Your task to perform on an android device: turn off smart reply in the gmail app Image 0: 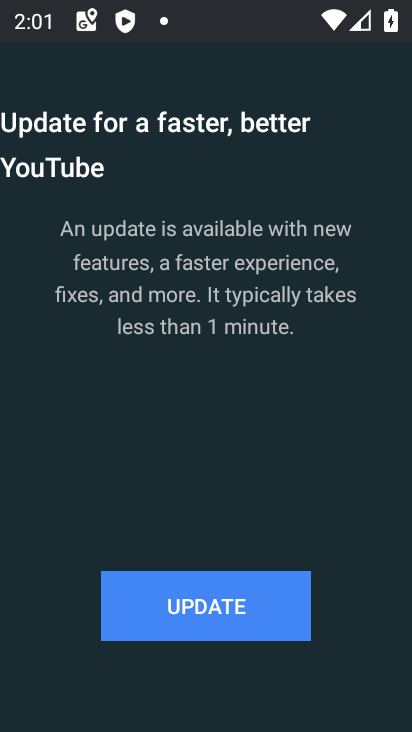
Step 0: press home button
Your task to perform on an android device: turn off smart reply in the gmail app Image 1: 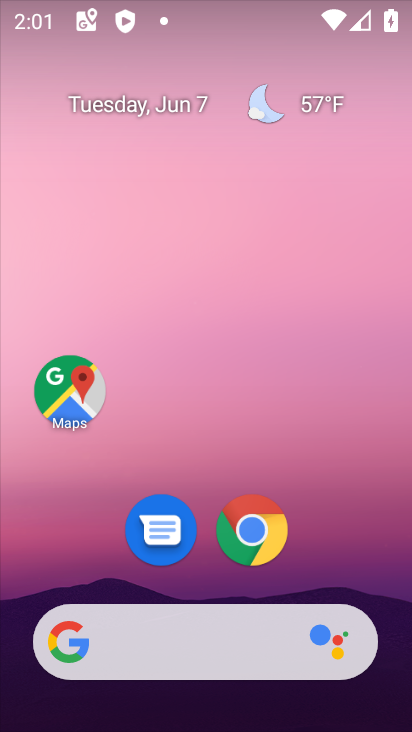
Step 1: drag from (319, 556) to (290, 125)
Your task to perform on an android device: turn off smart reply in the gmail app Image 2: 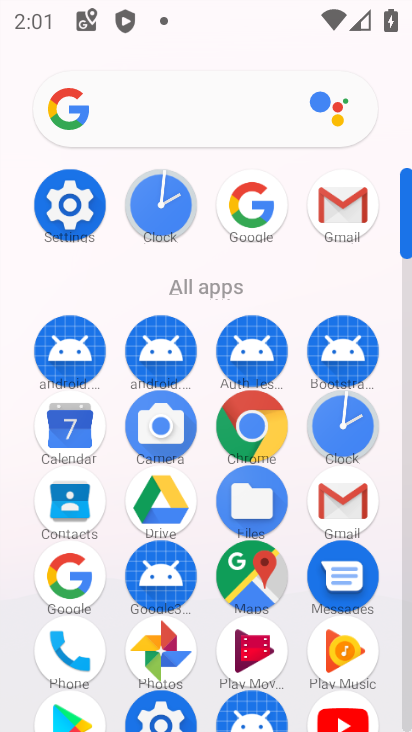
Step 2: click (337, 207)
Your task to perform on an android device: turn off smart reply in the gmail app Image 3: 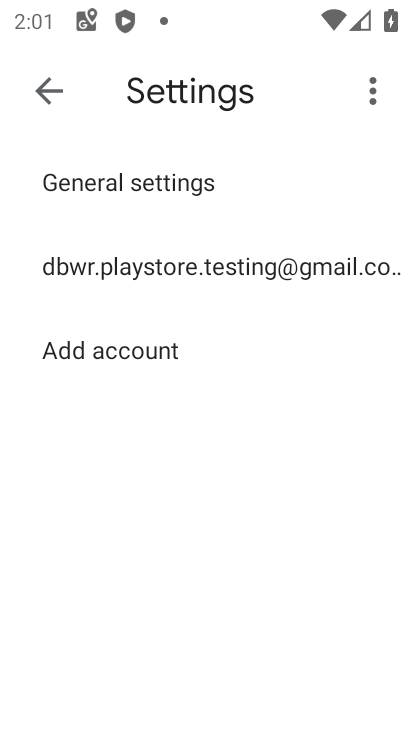
Step 3: click (120, 276)
Your task to perform on an android device: turn off smart reply in the gmail app Image 4: 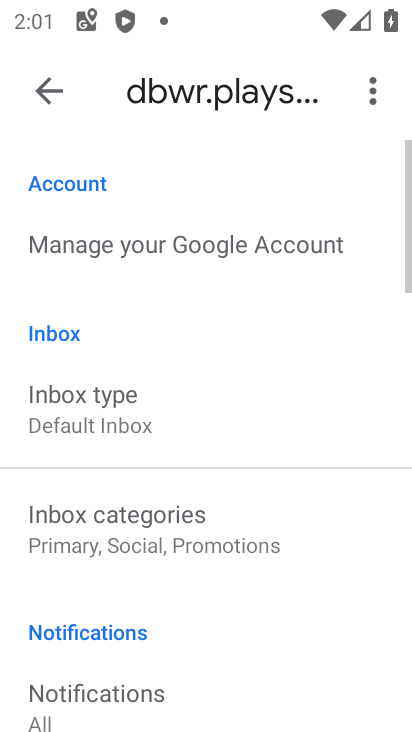
Step 4: drag from (232, 623) to (165, 161)
Your task to perform on an android device: turn off smart reply in the gmail app Image 5: 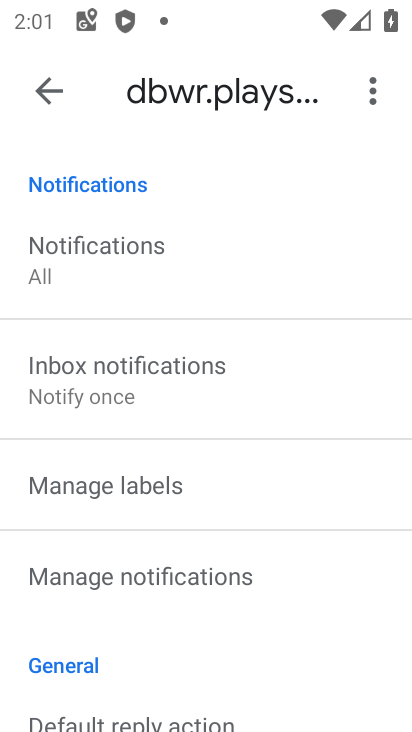
Step 5: drag from (208, 629) to (206, 201)
Your task to perform on an android device: turn off smart reply in the gmail app Image 6: 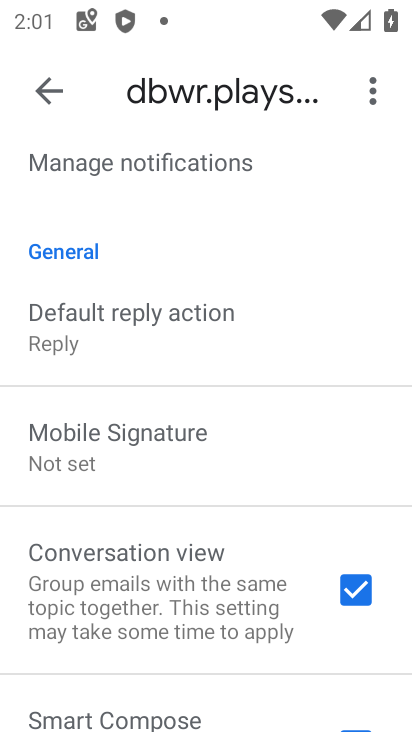
Step 6: drag from (199, 666) to (173, 281)
Your task to perform on an android device: turn off smart reply in the gmail app Image 7: 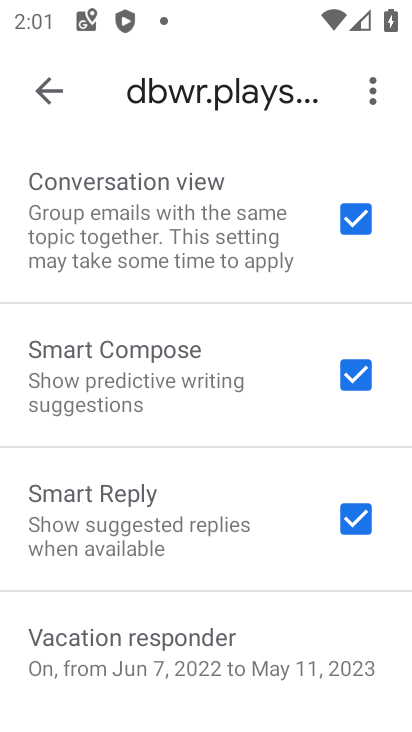
Step 7: click (358, 519)
Your task to perform on an android device: turn off smart reply in the gmail app Image 8: 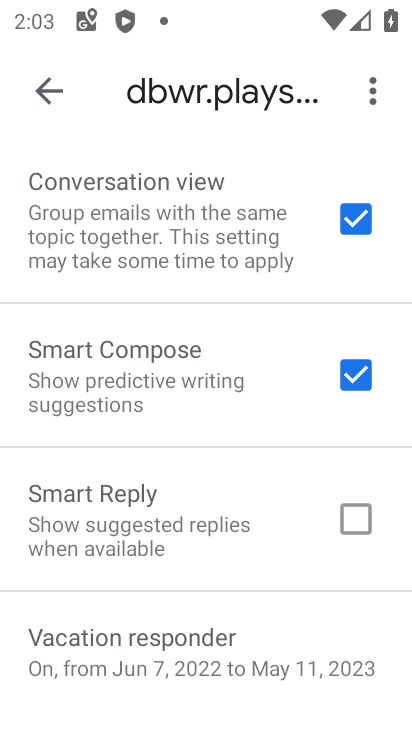
Step 8: task complete